Your task to perform on an android device: Go to network settings Image 0: 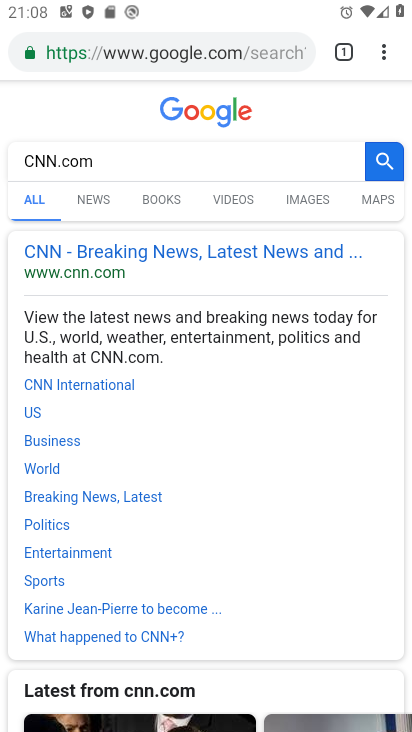
Step 0: press home button
Your task to perform on an android device: Go to network settings Image 1: 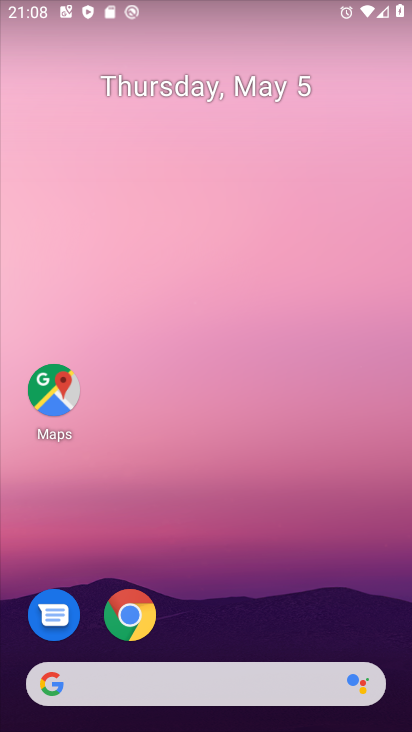
Step 1: drag from (221, 628) to (275, 161)
Your task to perform on an android device: Go to network settings Image 2: 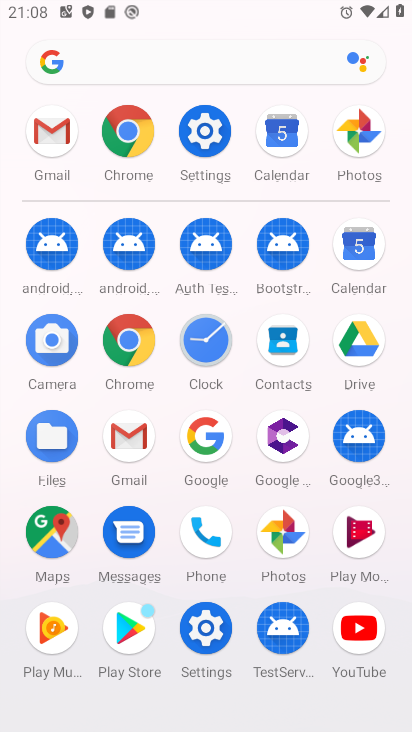
Step 2: click (213, 155)
Your task to perform on an android device: Go to network settings Image 3: 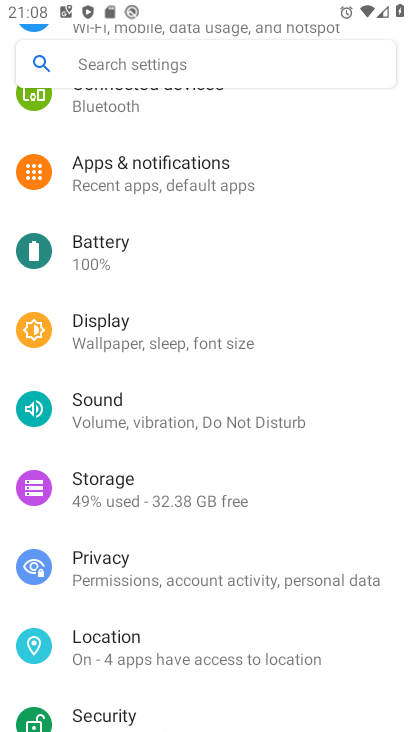
Step 3: drag from (224, 208) to (200, 636)
Your task to perform on an android device: Go to network settings Image 4: 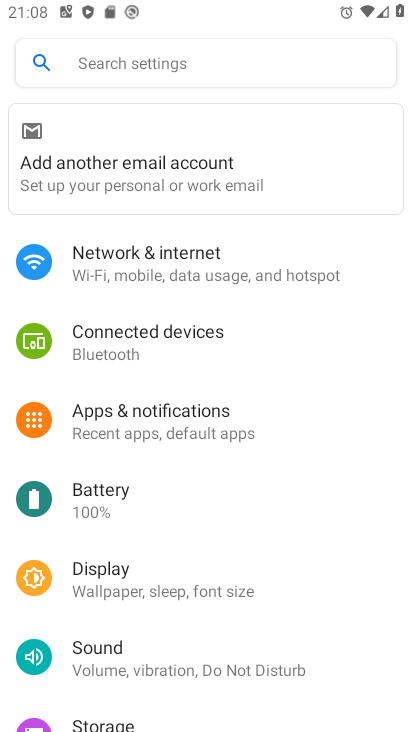
Step 4: click (179, 273)
Your task to perform on an android device: Go to network settings Image 5: 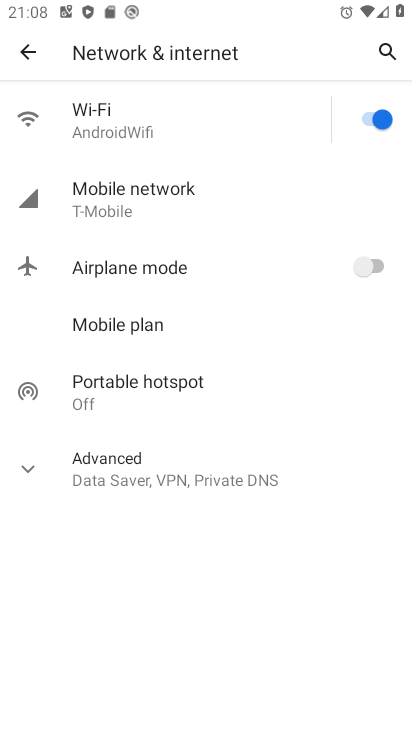
Step 5: click (179, 204)
Your task to perform on an android device: Go to network settings Image 6: 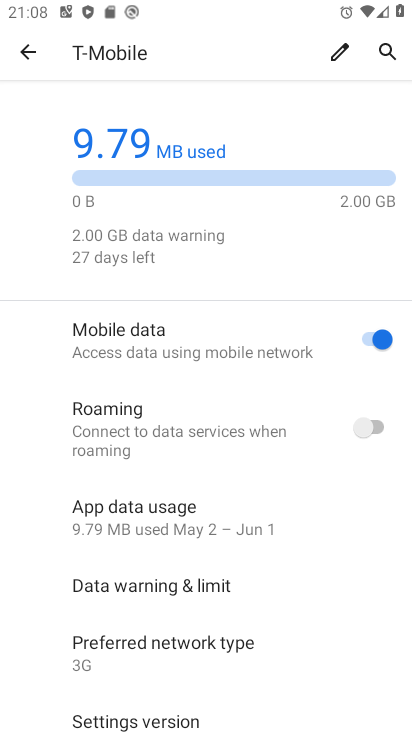
Step 6: task complete